Your task to perform on an android device: open app "Speedtest by Ookla" Image 0: 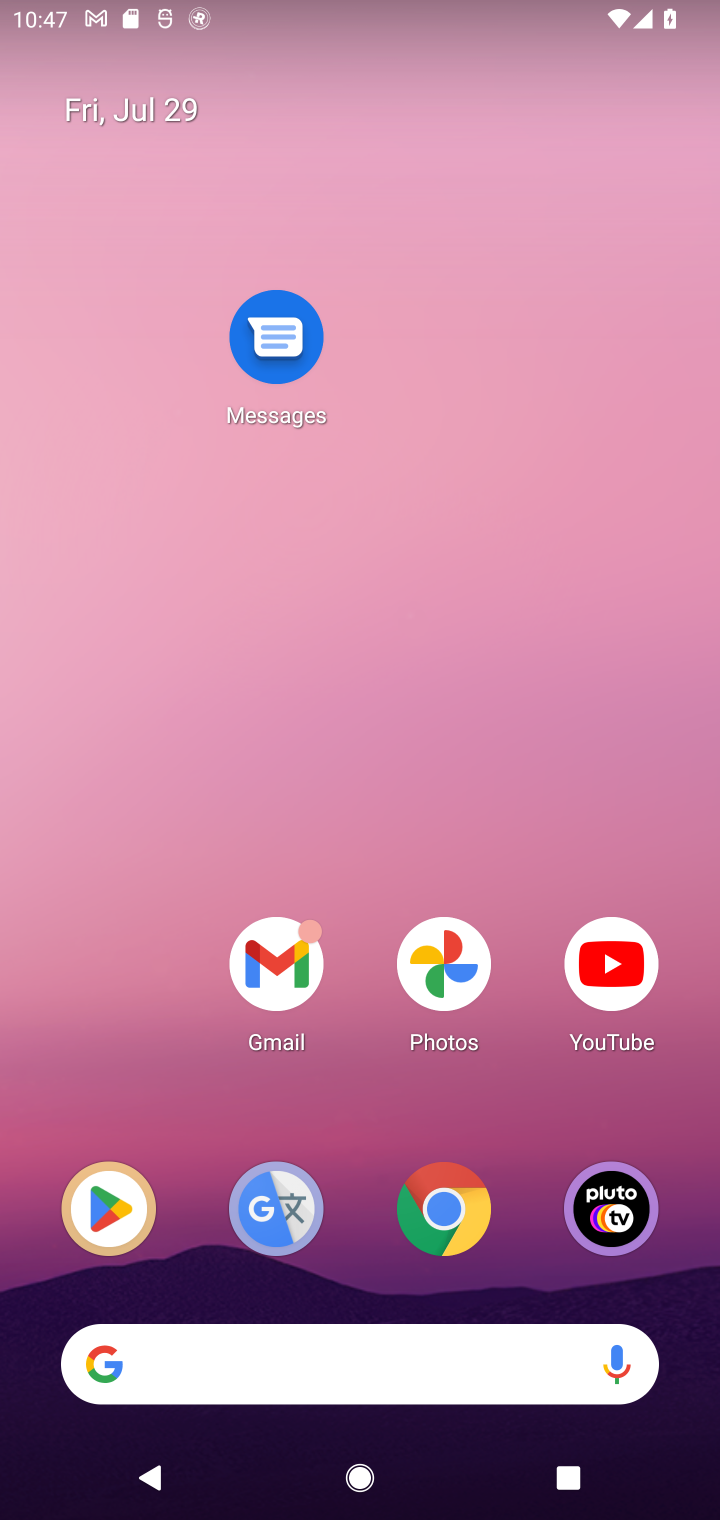
Step 0: press home button
Your task to perform on an android device: open app "Speedtest by Ookla" Image 1: 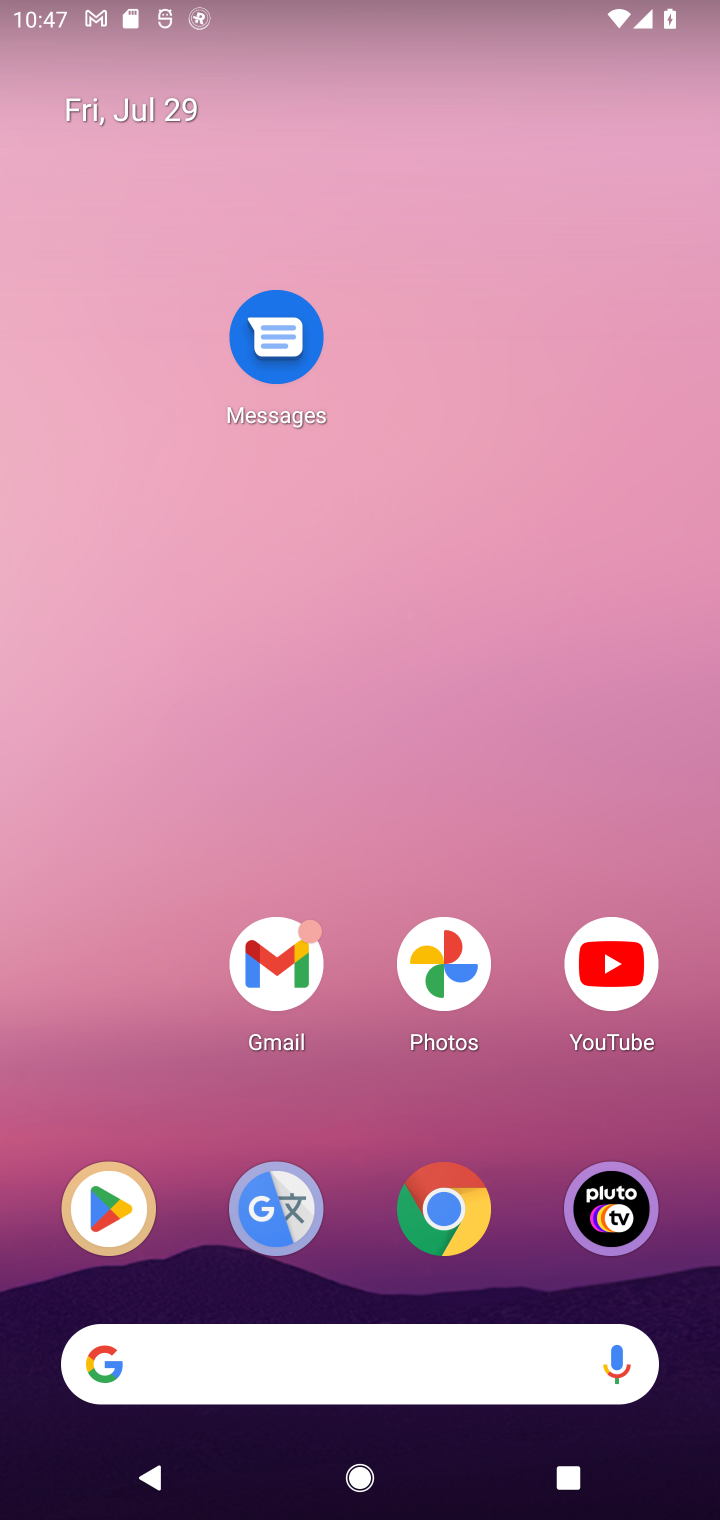
Step 1: drag from (379, 1307) to (534, 223)
Your task to perform on an android device: open app "Speedtest by Ookla" Image 2: 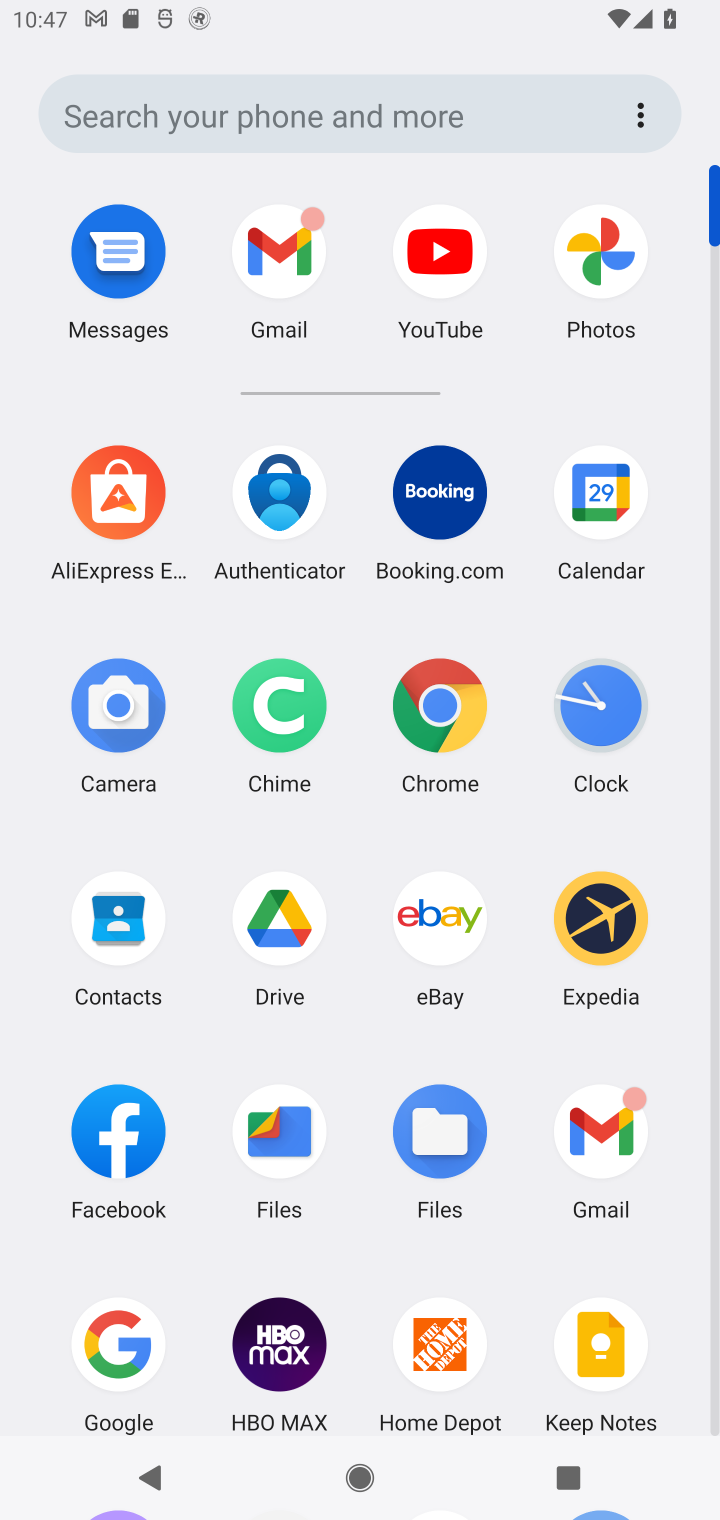
Step 2: drag from (352, 1282) to (314, 470)
Your task to perform on an android device: open app "Speedtest by Ookla" Image 3: 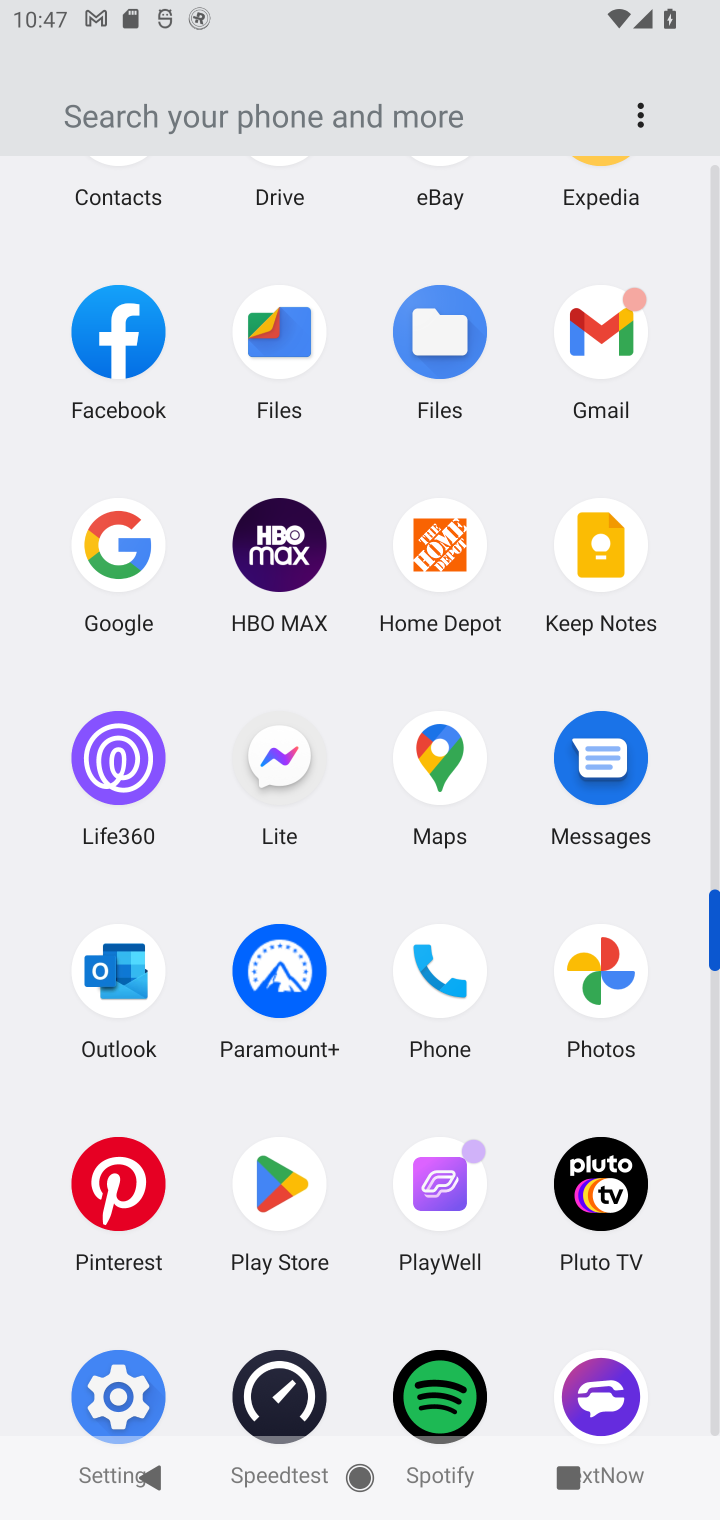
Step 3: drag from (374, 1079) to (340, 655)
Your task to perform on an android device: open app "Speedtest by Ookla" Image 4: 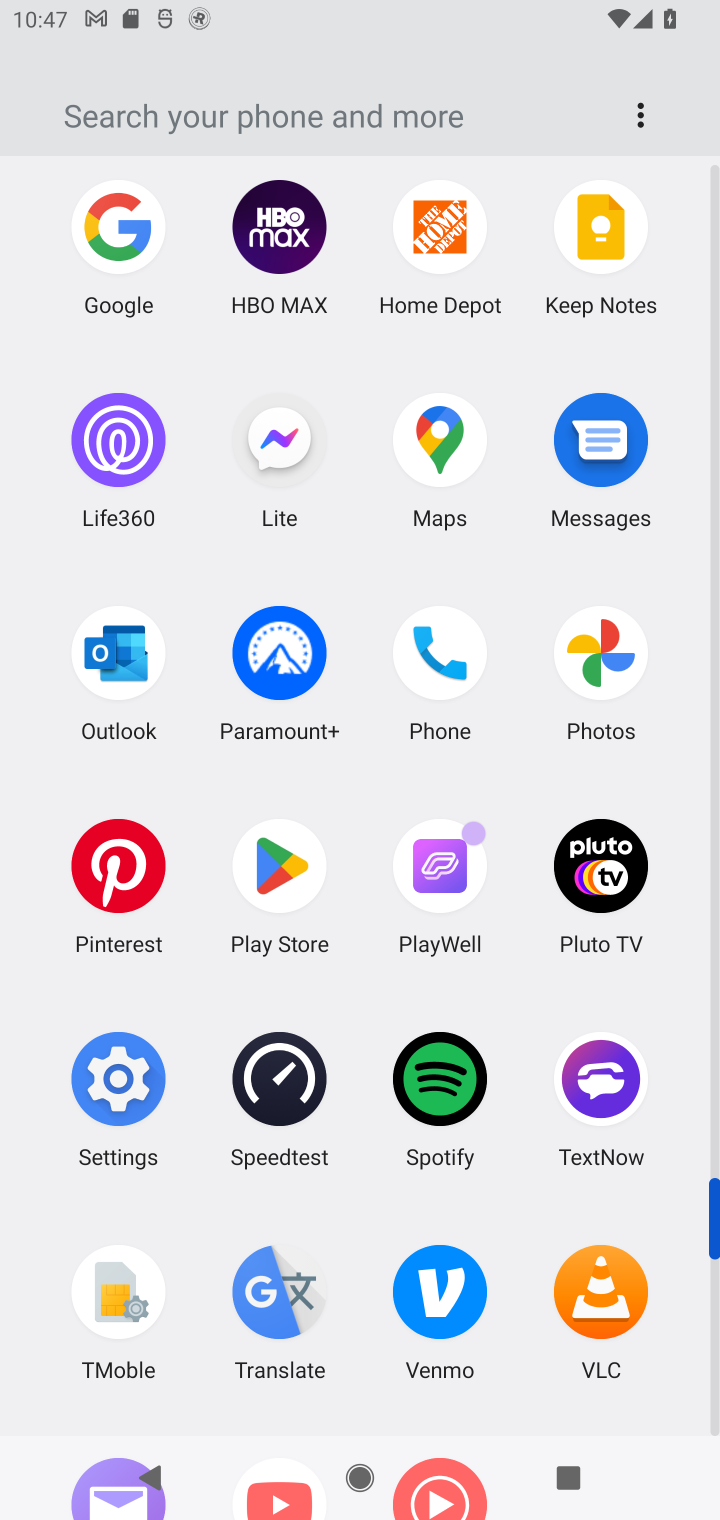
Step 4: click (279, 871)
Your task to perform on an android device: open app "Speedtest by Ookla" Image 5: 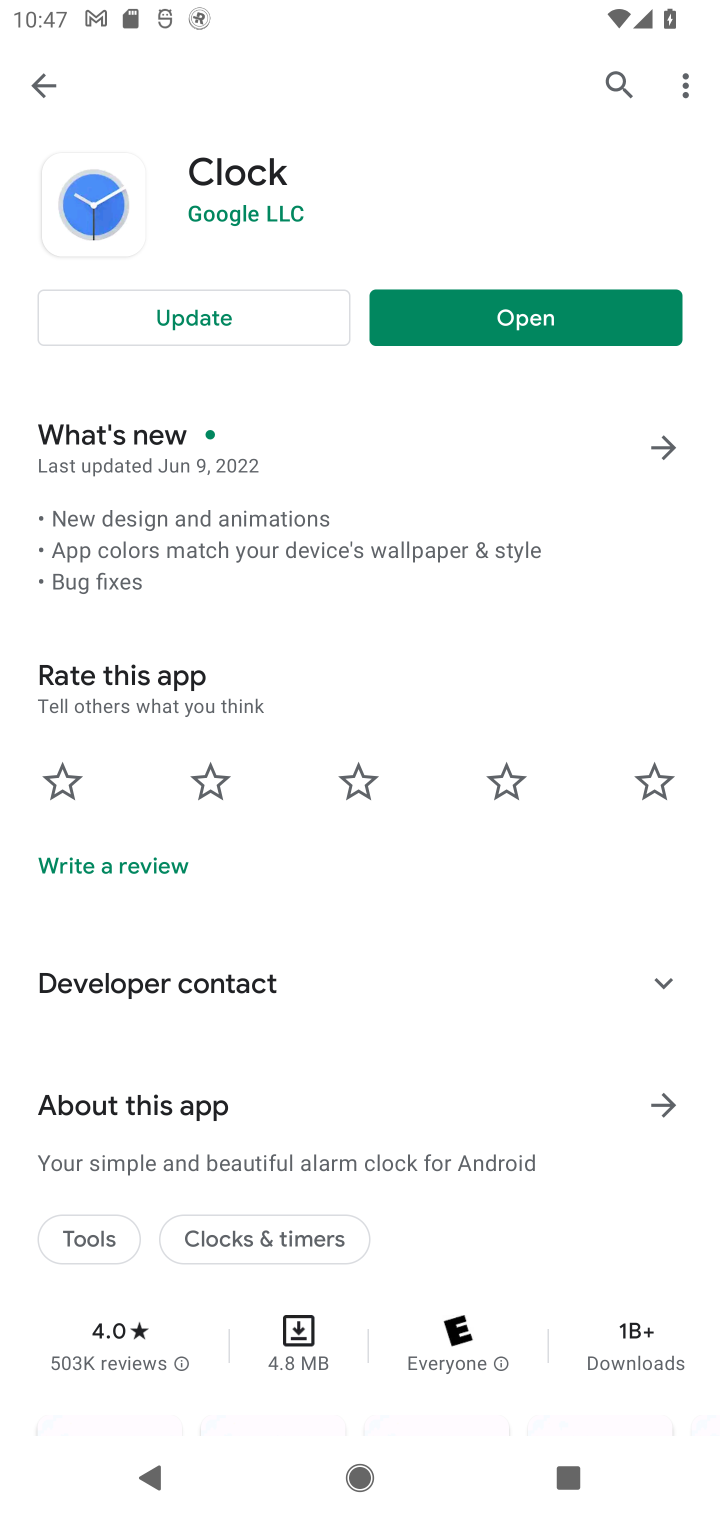
Step 5: click (617, 83)
Your task to perform on an android device: open app "Speedtest by Ookla" Image 6: 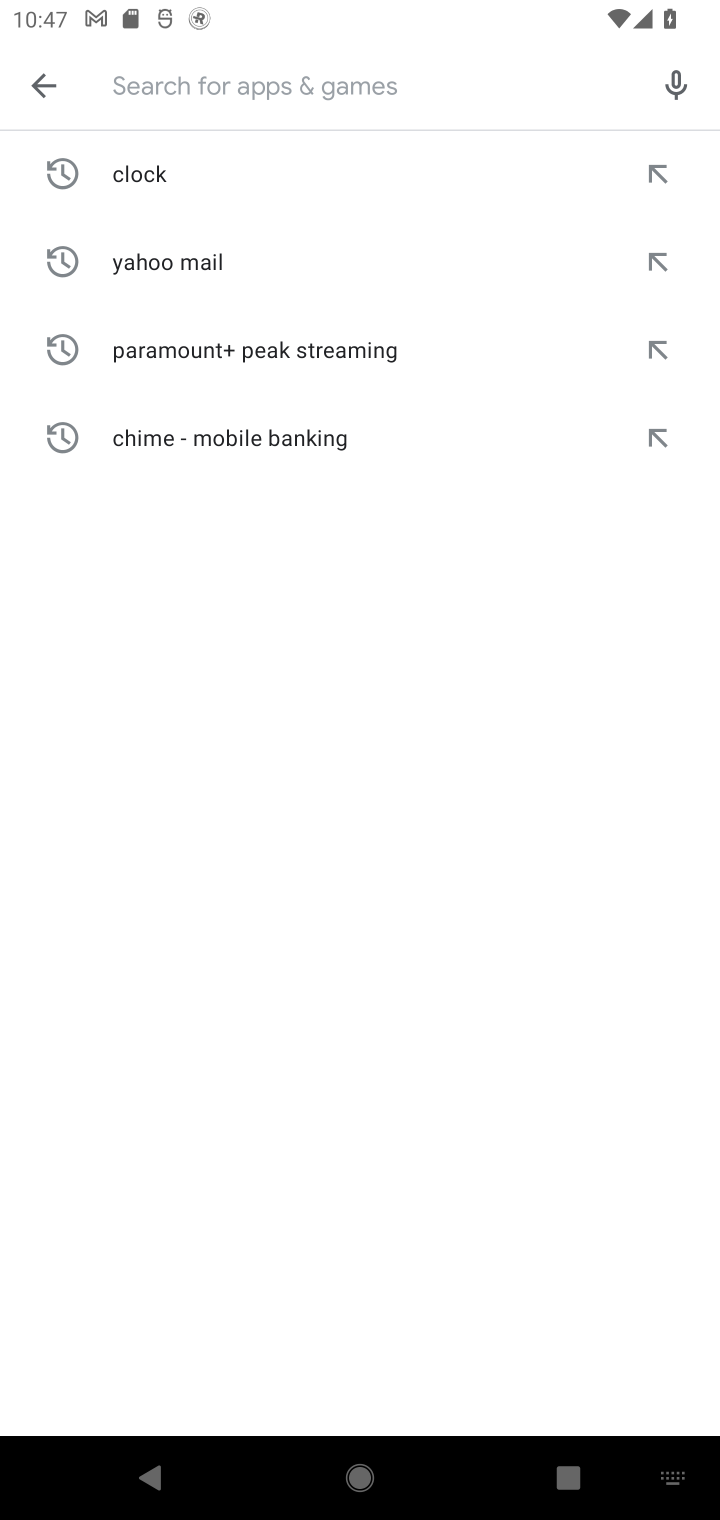
Step 6: click (511, 100)
Your task to perform on an android device: open app "Speedtest by Ookla" Image 7: 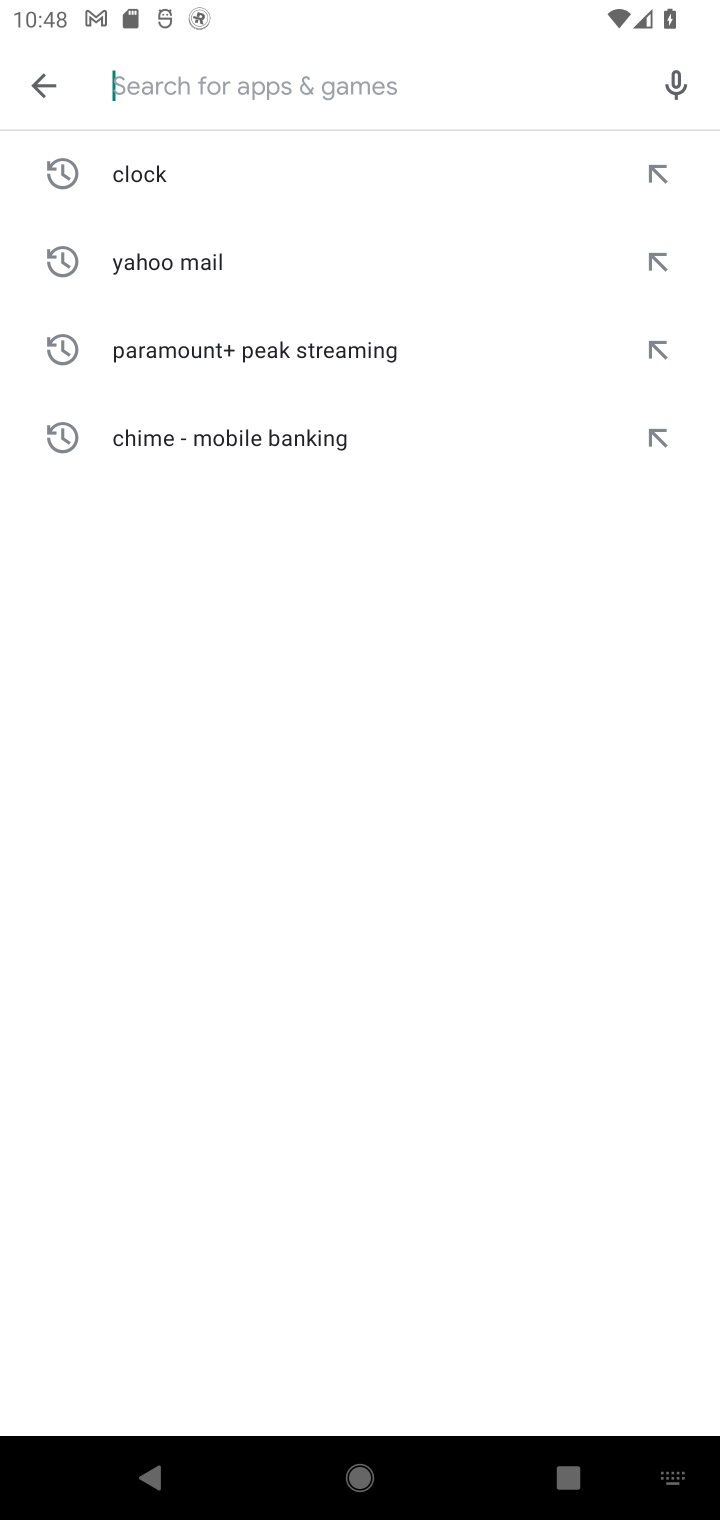
Step 7: type "Speedtest by Ookla"
Your task to perform on an android device: open app "Speedtest by Ookla" Image 8: 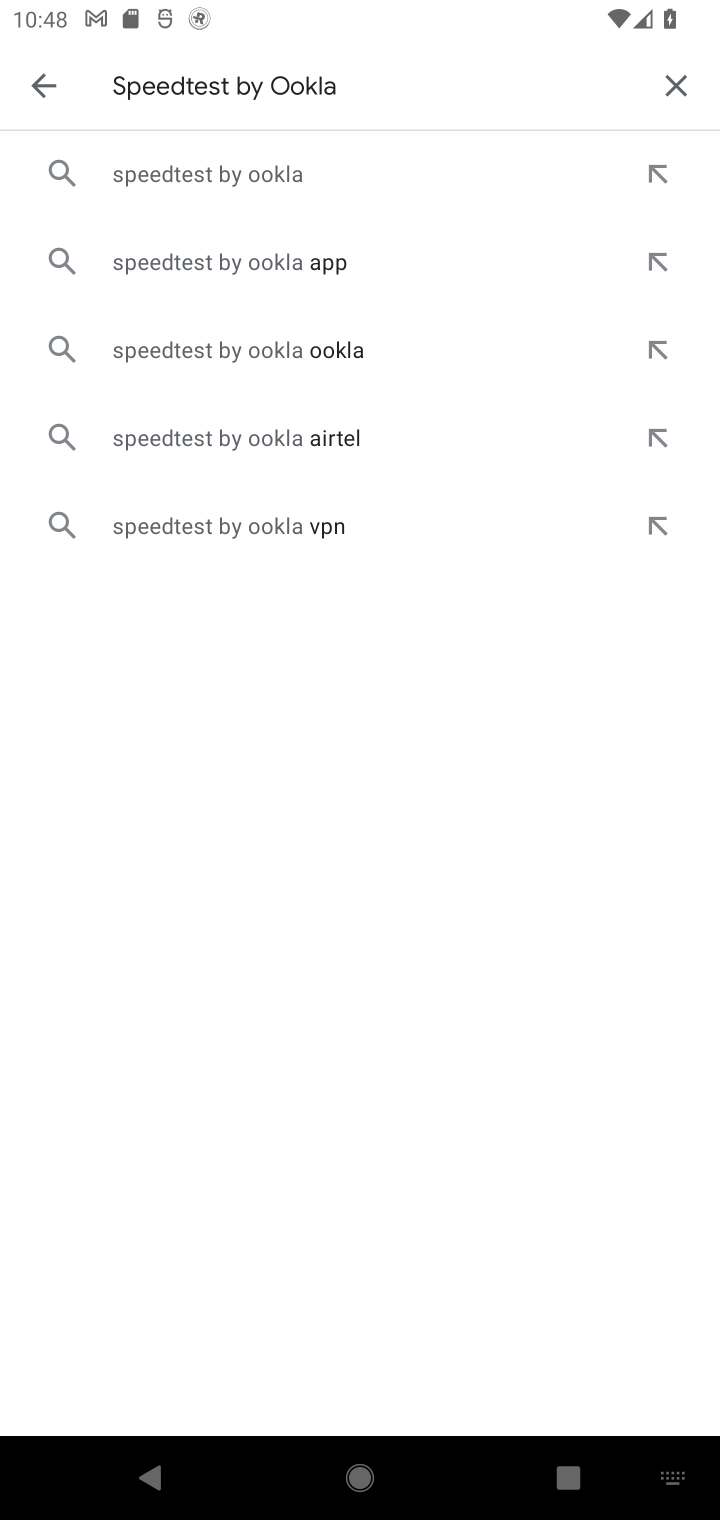
Step 8: click (197, 182)
Your task to perform on an android device: open app "Speedtest by Ookla" Image 9: 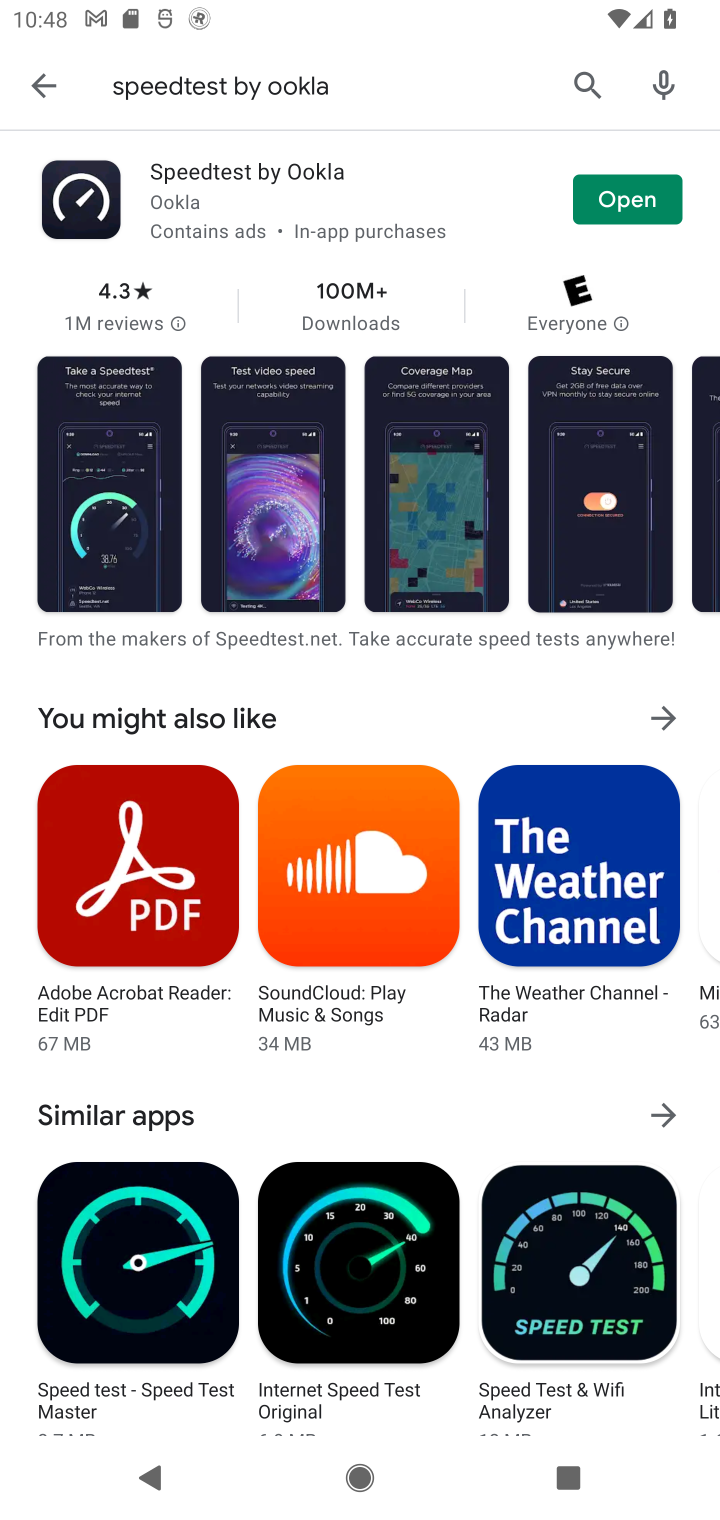
Step 9: click (617, 189)
Your task to perform on an android device: open app "Speedtest by Ookla" Image 10: 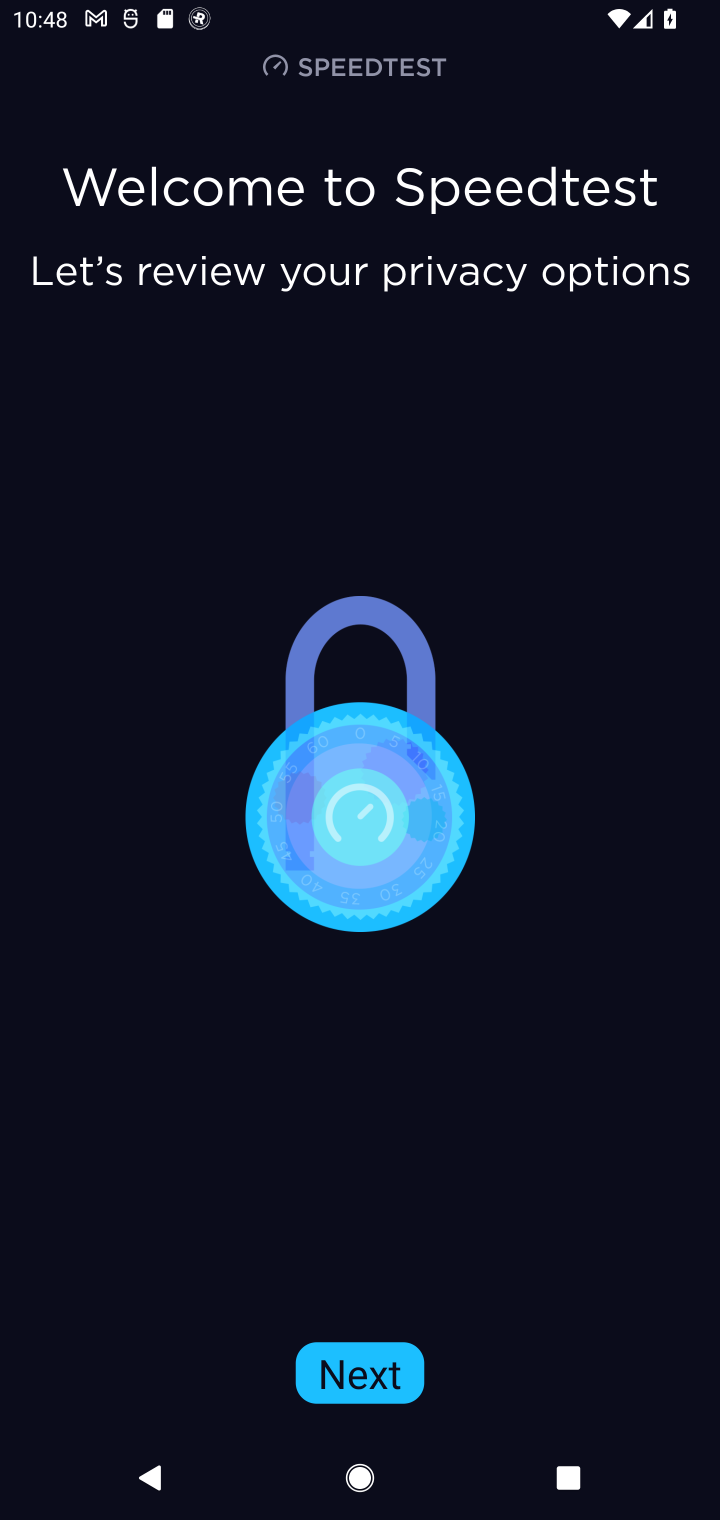
Step 10: task complete